Your task to perform on an android device: What's on my calendar today? Image 0: 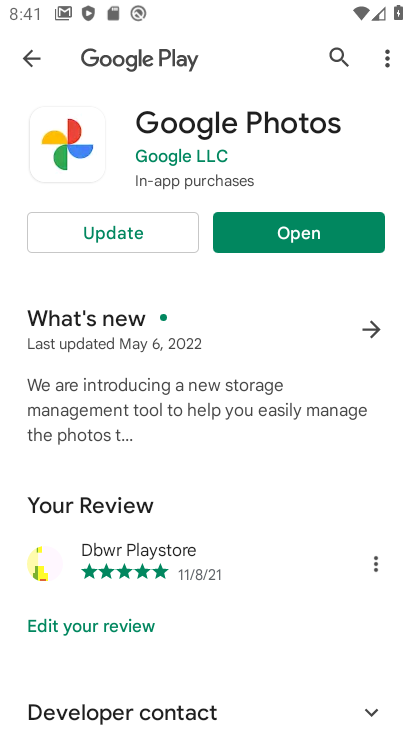
Step 0: press home button
Your task to perform on an android device: What's on my calendar today? Image 1: 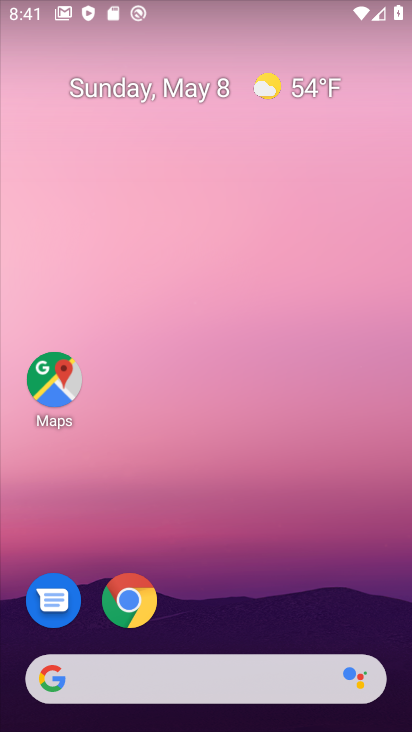
Step 1: task complete